Your task to perform on an android device: Go to internet settings Image 0: 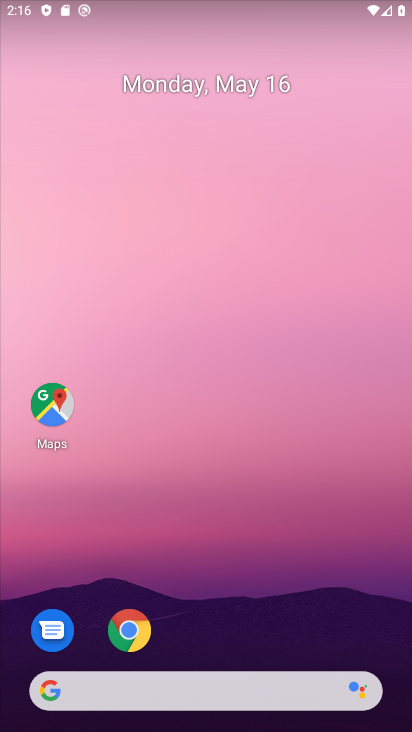
Step 0: press home button
Your task to perform on an android device: Go to internet settings Image 1: 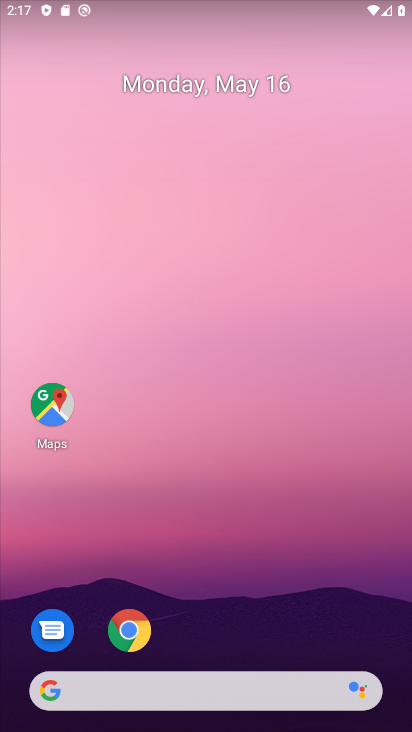
Step 1: drag from (203, 624) to (224, 222)
Your task to perform on an android device: Go to internet settings Image 2: 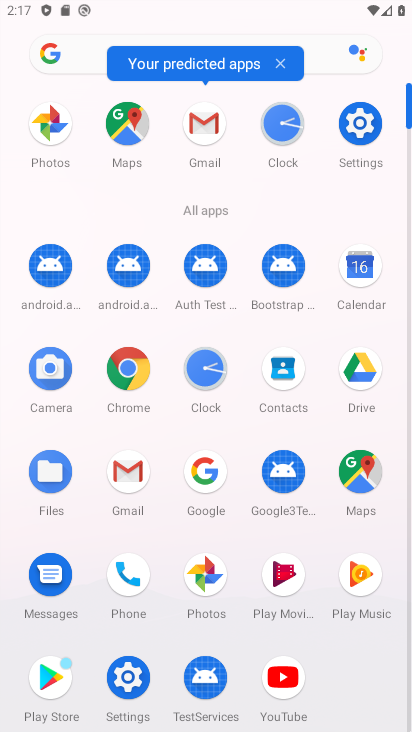
Step 2: click (360, 124)
Your task to perform on an android device: Go to internet settings Image 3: 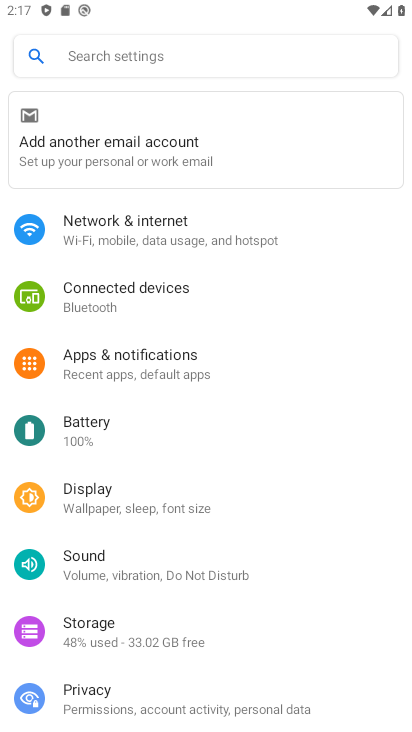
Step 3: click (176, 232)
Your task to perform on an android device: Go to internet settings Image 4: 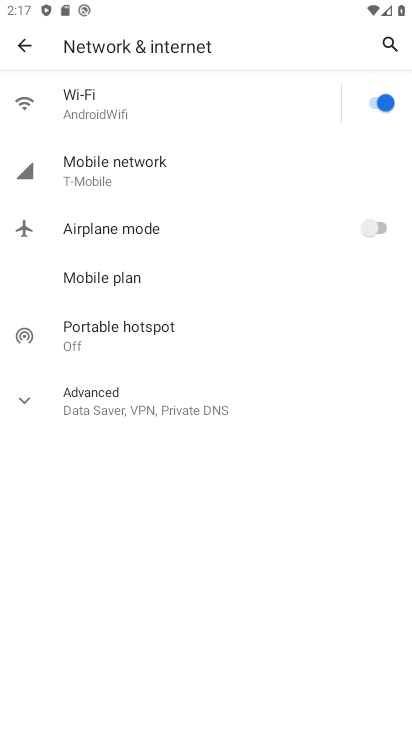
Step 4: click (61, 404)
Your task to perform on an android device: Go to internet settings Image 5: 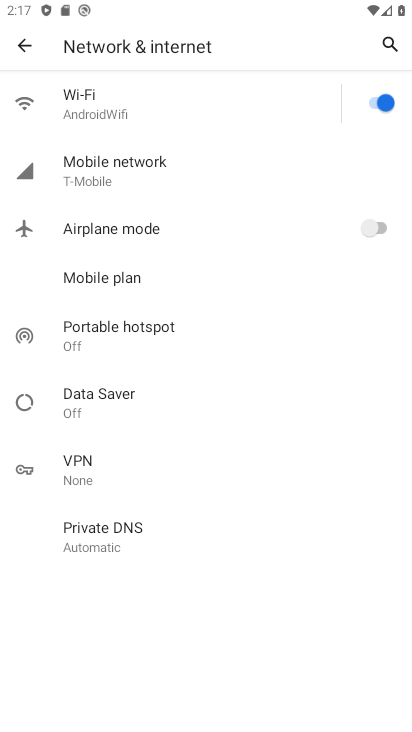
Step 5: task complete